Your task to perform on an android device: Go to accessibility settings Image 0: 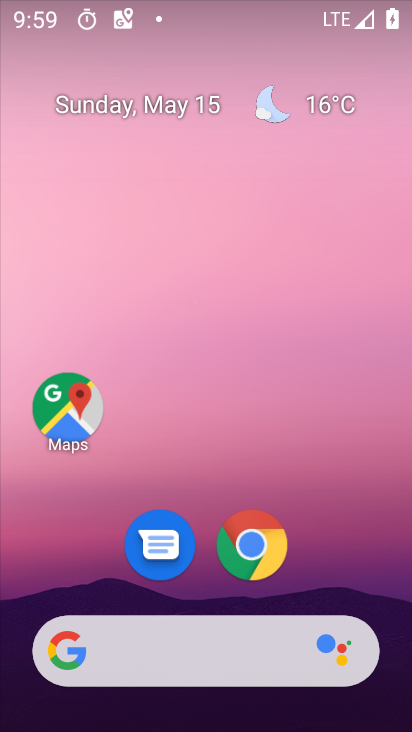
Step 0: drag from (295, 384) to (241, 64)
Your task to perform on an android device: Go to accessibility settings Image 1: 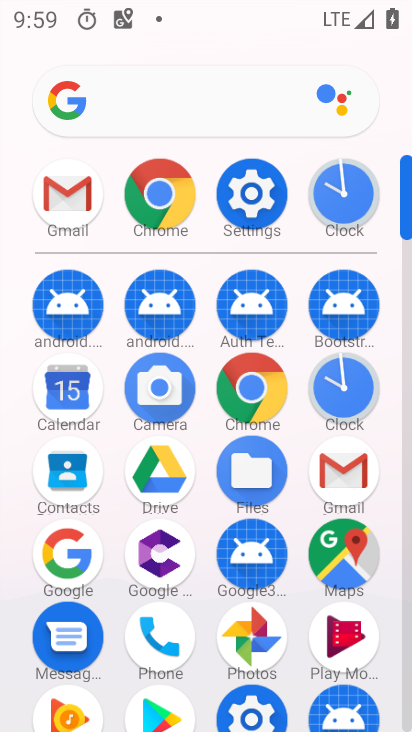
Step 1: click (252, 194)
Your task to perform on an android device: Go to accessibility settings Image 2: 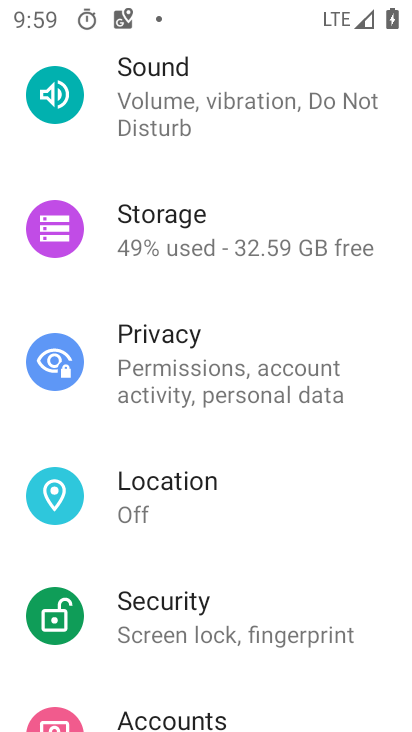
Step 2: drag from (237, 441) to (256, 329)
Your task to perform on an android device: Go to accessibility settings Image 3: 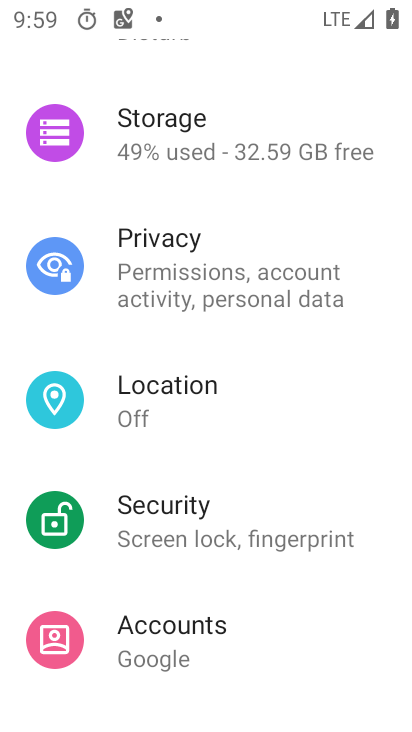
Step 3: drag from (188, 466) to (235, 338)
Your task to perform on an android device: Go to accessibility settings Image 4: 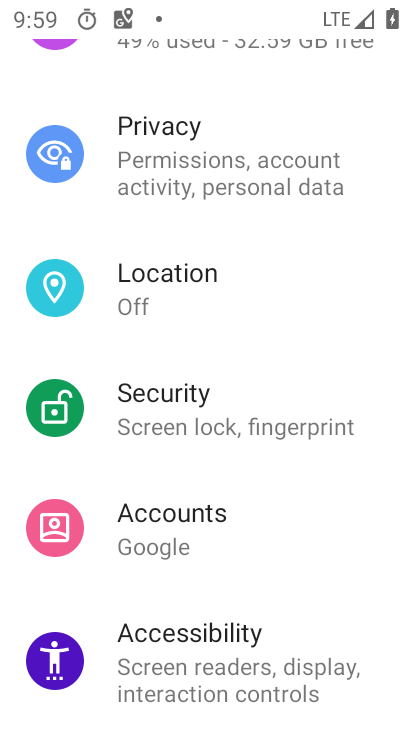
Step 4: drag from (174, 488) to (227, 368)
Your task to perform on an android device: Go to accessibility settings Image 5: 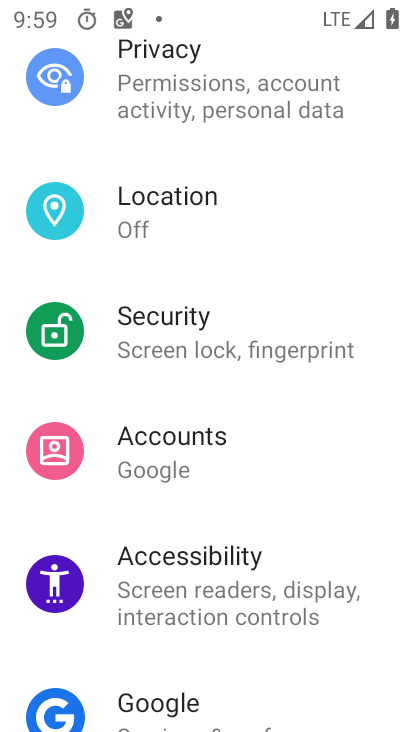
Step 5: click (170, 570)
Your task to perform on an android device: Go to accessibility settings Image 6: 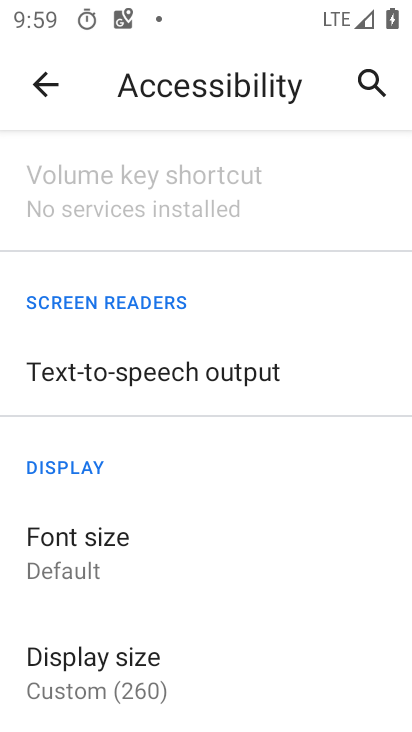
Step 6: task complete